Your task to perform on an android device: turn off wifi Image 0: 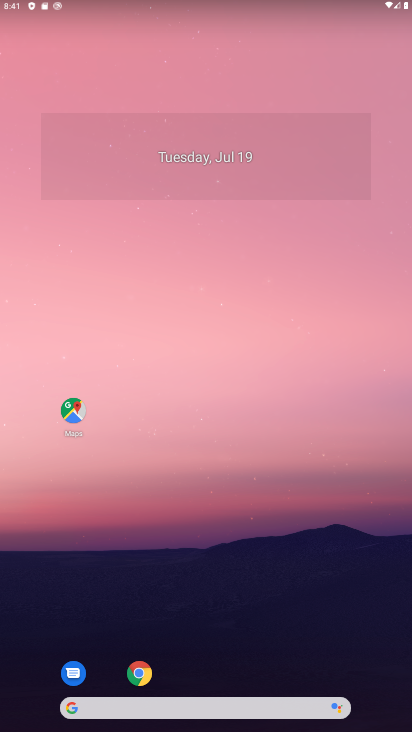
Step 0: drag from (282, 700) to (362, 137)
Your task to perform on an android device: turn off wifi Image 1: 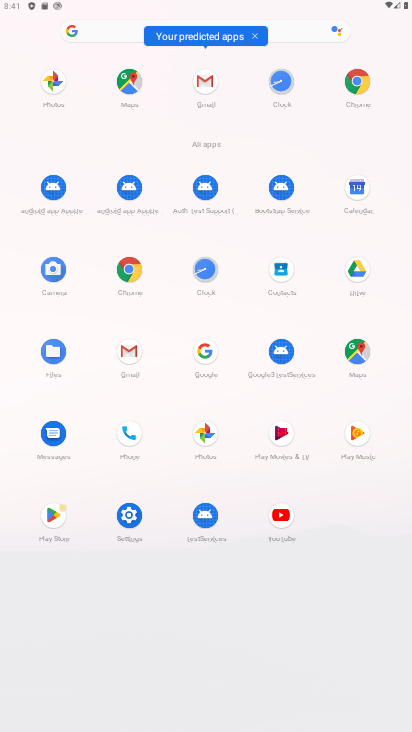
Step 1: click (121, 514)
Your task to perform on an android device: turn off wifi Image 2: 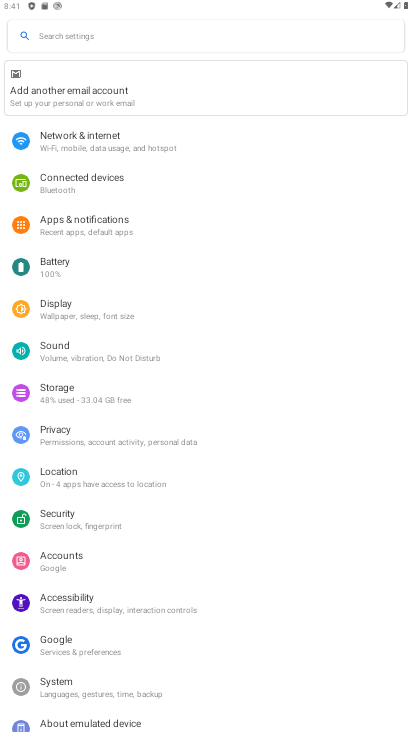
Step 2: click (147, 147)
Your task to perform on an android device: turn off wifi Image 3: 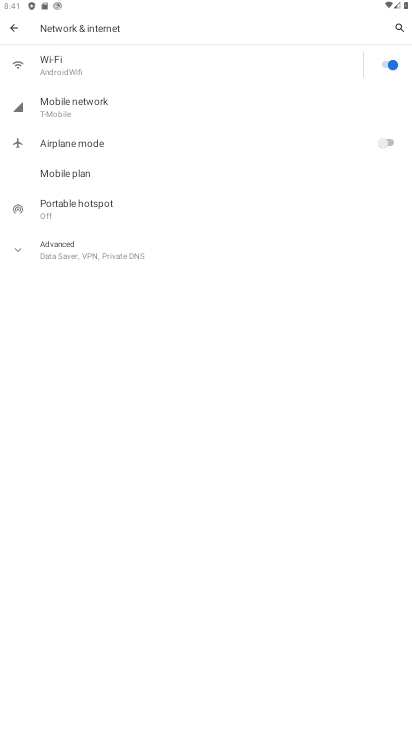
Step 3: click (394, 62)
Your task to perform on an android device: turn off wifi Image 4: 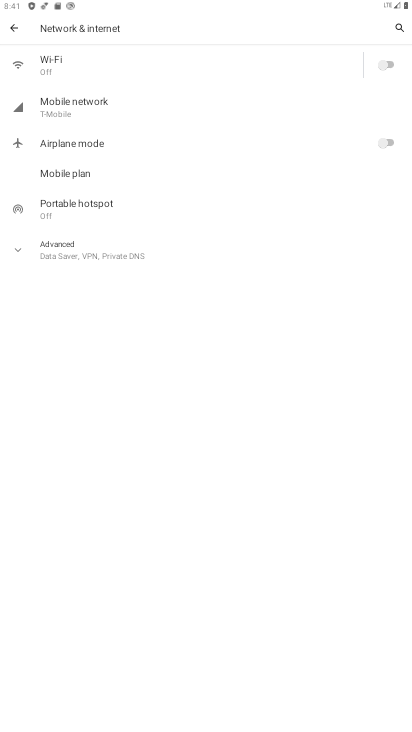
Step 4: task complete